Your task to perform on an android device: turn pop-ups on in chrome Image 0: 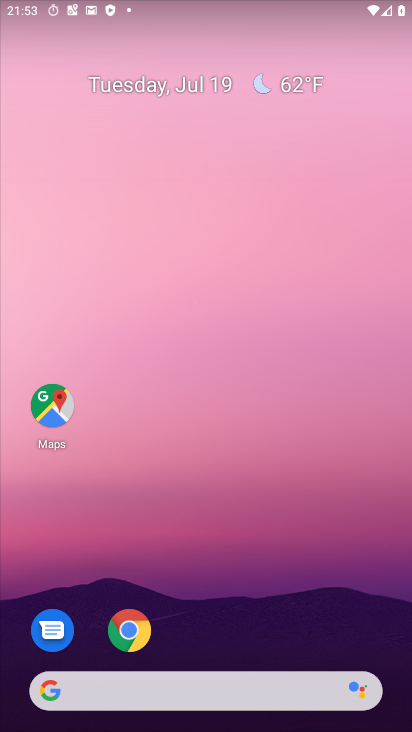
Step 0: click (99, 683)
Your task to perform on an android device: turn pop-ups on in chrome Image 1: 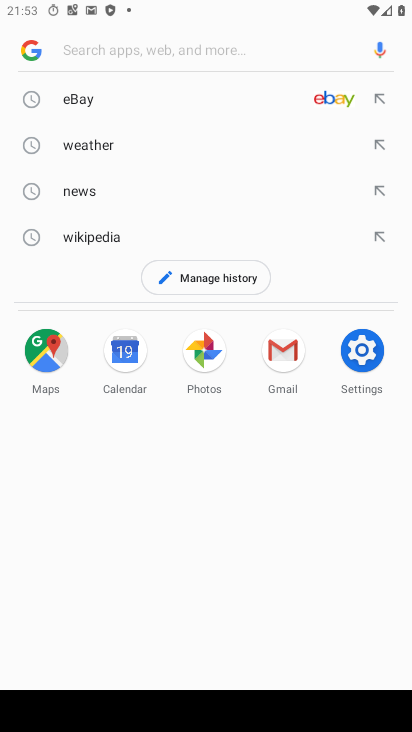
Step 1: press home button
Your task to perform on an android device: turn pop-ups on in chrome Image 2: 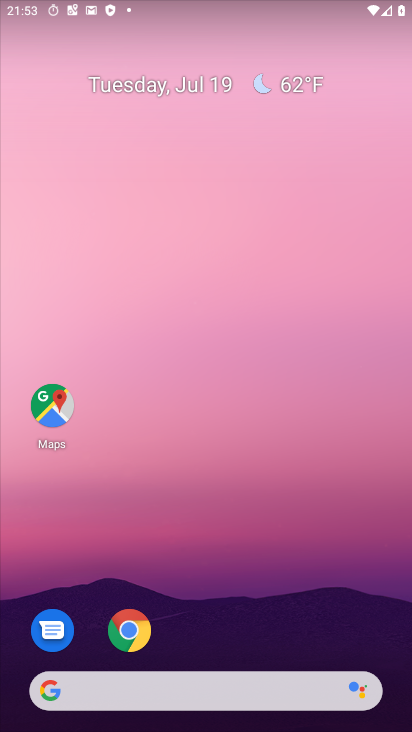
Step 2: click (112, 621)
Your task to perform on an android device: turn pop-ups on in chrome Image 3: 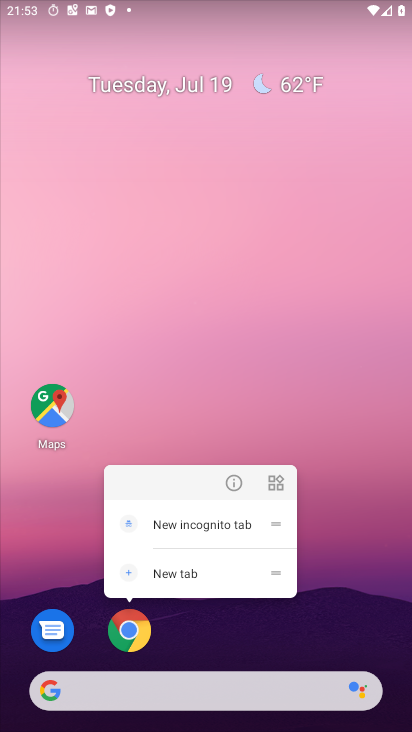
Step 3: click (113, 627)
Your task to perform on an android device: turn pop-ups on in chrome Image 4: 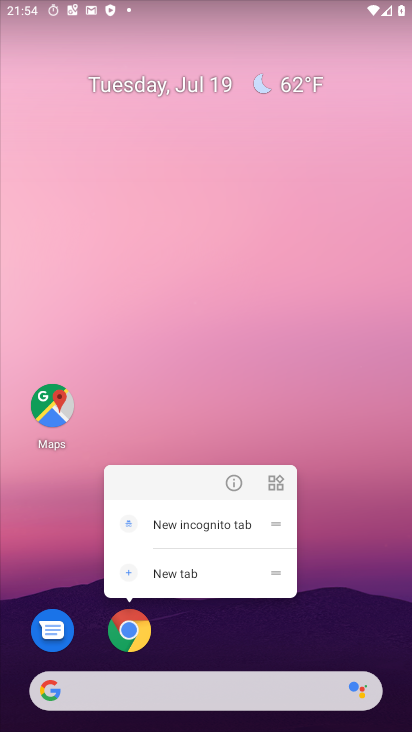
Step 4: click (135, 651)
Your task to perform on an android device: turn pop-ups on in chrome Image 5: 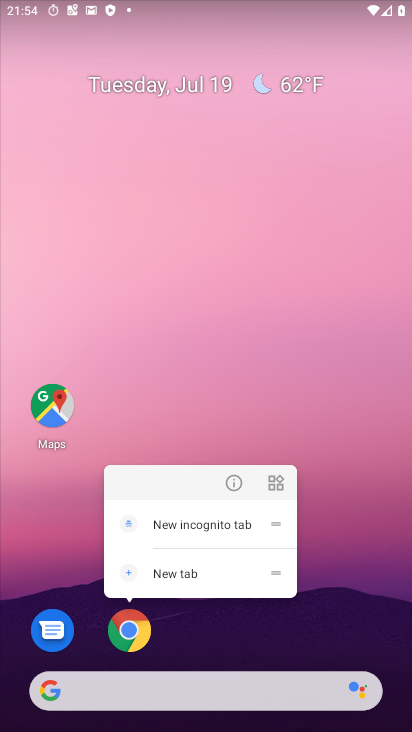
Step 5: click (129, 626)
Your task to perform on an android device: turn pop-ups on in chrome Image 6: 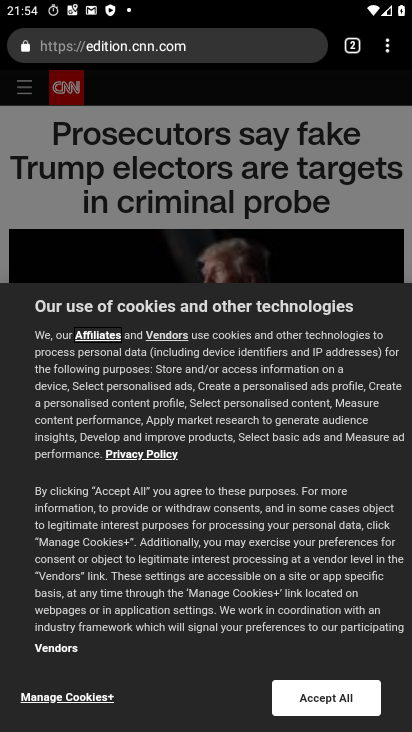
Step 6: click (392, 49)
Your task to perform on an android device: turn pop-ups on in chrome Image 7: 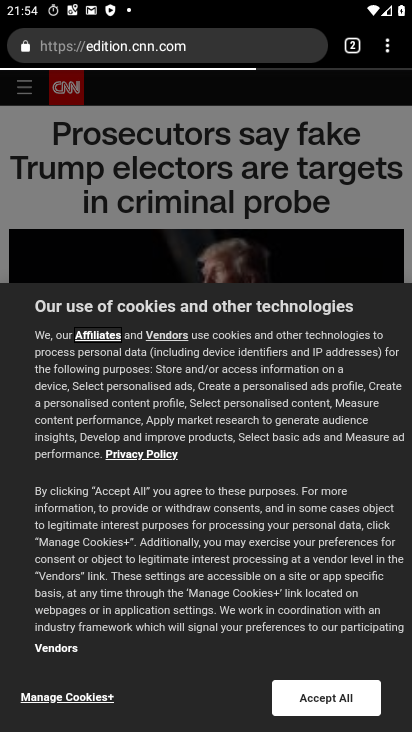
Step 7: click (391, 49)
Your task to perform on an android device: turn pop-ups on in chrome Image 8: 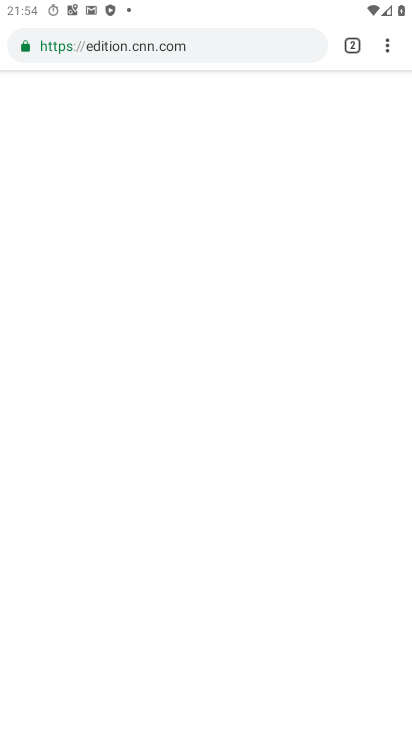
Step 8: click (391, 49)
Your task to perform on an android device: turn pop-ups on in chrome Image 9: 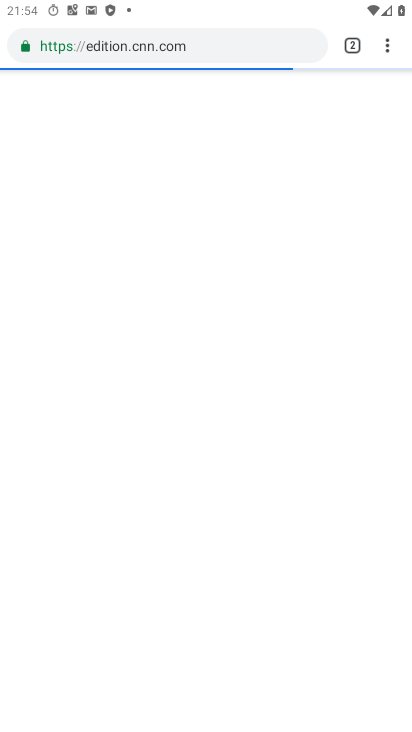
Step 9: click (387, 37)
Your task to perform on an android device: turn pop-ups on in chrome Image 10: 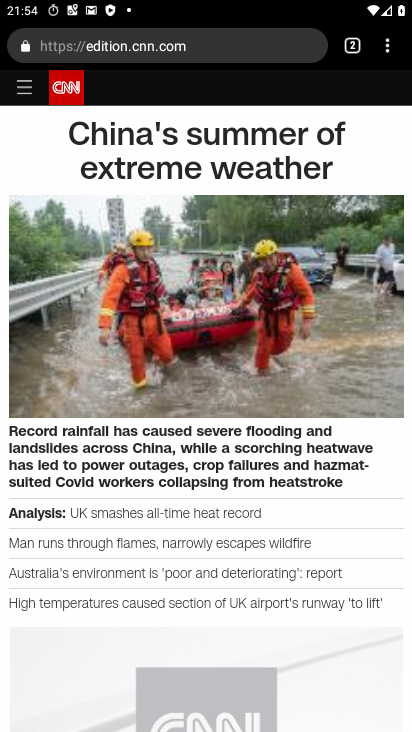
Step 10: task complete